Your task to perform on an android device: Open ESPN.com Image 0: 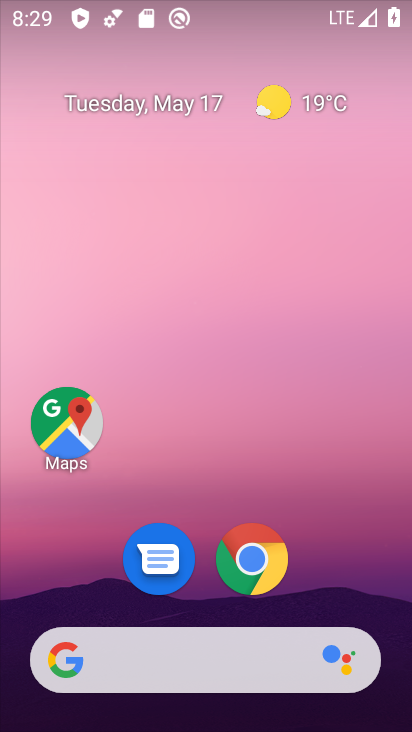
Step 0: click (235, 655)
Your task to perform on an android device: Open ESPN.com Image 1: 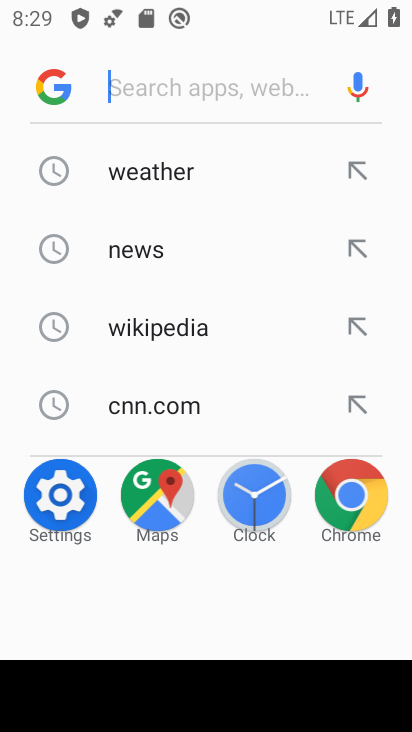
Step 1: click (115, 62)
Your task to perform on an android device: Open ESPN.com Image 2: 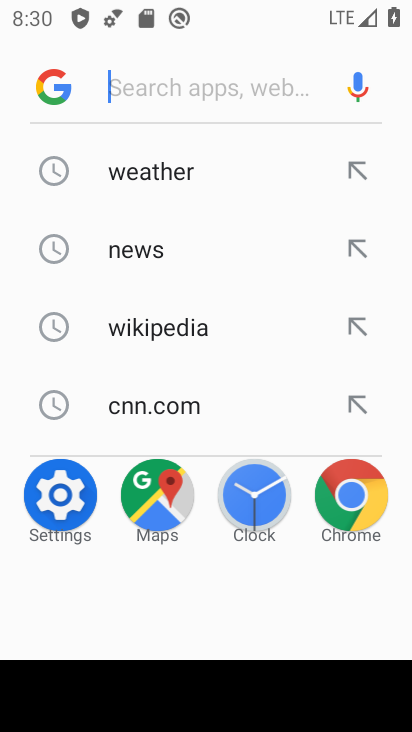
Step 2: type "espn"
Your task to perform on an android device: Open ESPN.com Image 3: 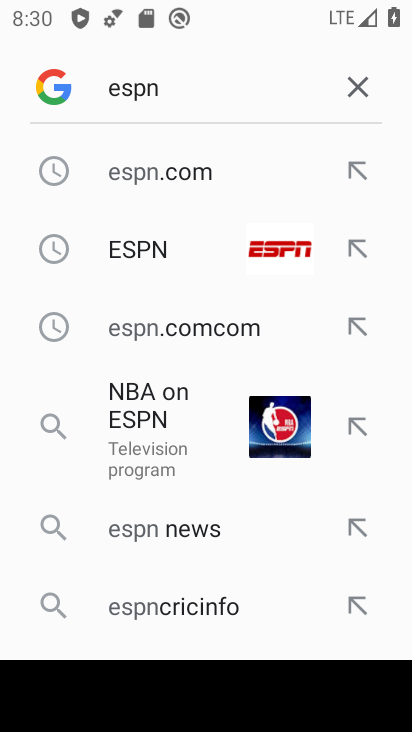
Step 3: click (141, 264)
Your task to perform on an android device: Open ESPN.com Image 4: 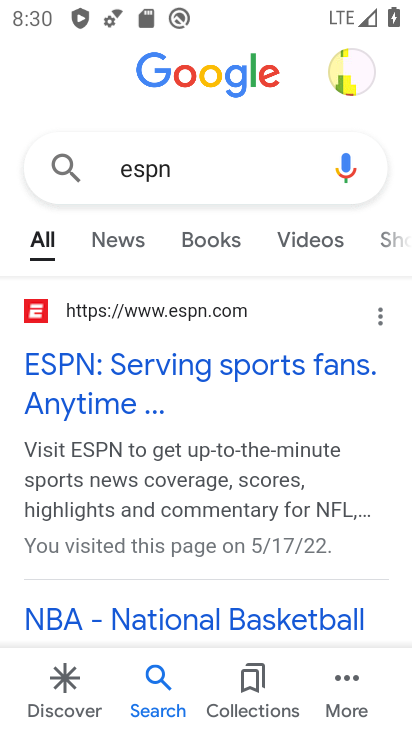
Step 4: click (122, 377)
Your task to perform on an android device: Open ESPN.com Image 5: 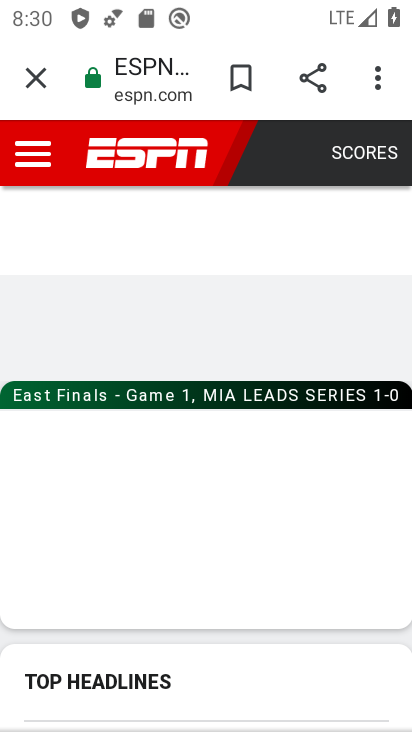
Step 5: task complete